Your task to perform on an android device: Go to Amazon Image 0: 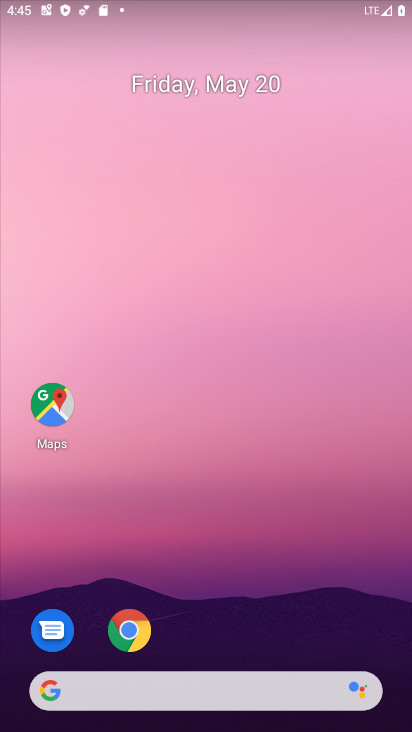
Step 0: click (129, 629)
Your task to perform on an android device: Go to Amazon Image 1: 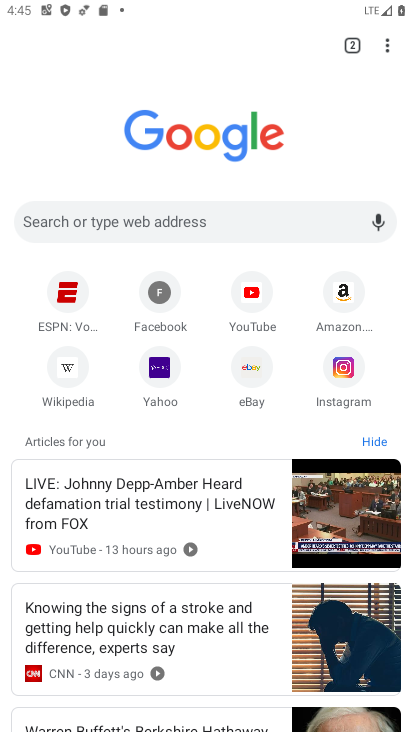
Step 1: click (340, 291)
Your task to perform on an android device: Go to Amazon Image 2: 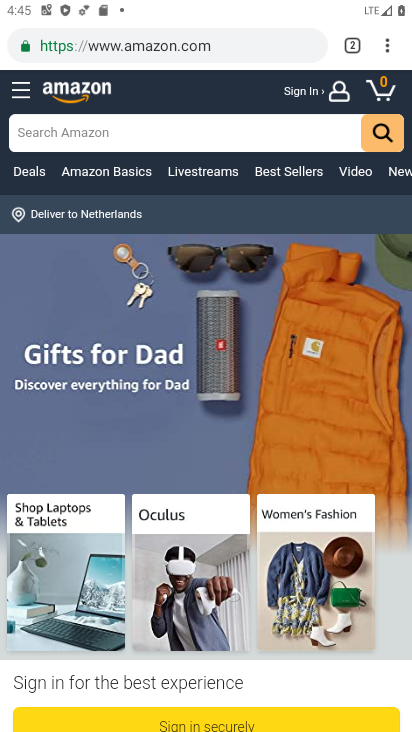
Step 2: task complete